Your task to perform on an android device: Is it going to rain today? Image 0: 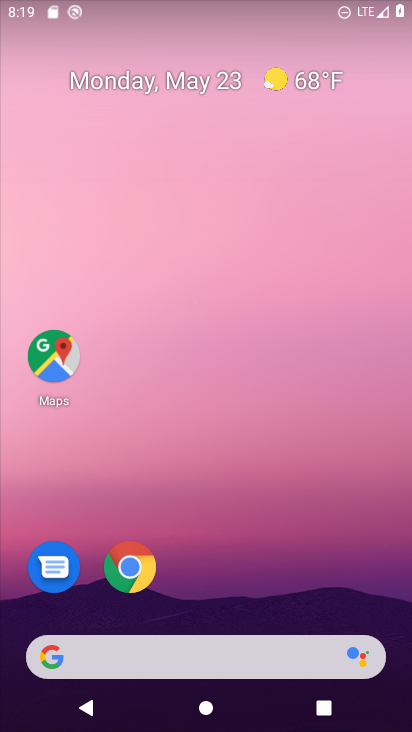
Step 0: drag from (242, 578) to (321, 133)
Your task to perform on an android device: Is it going to rain today? Image 1: 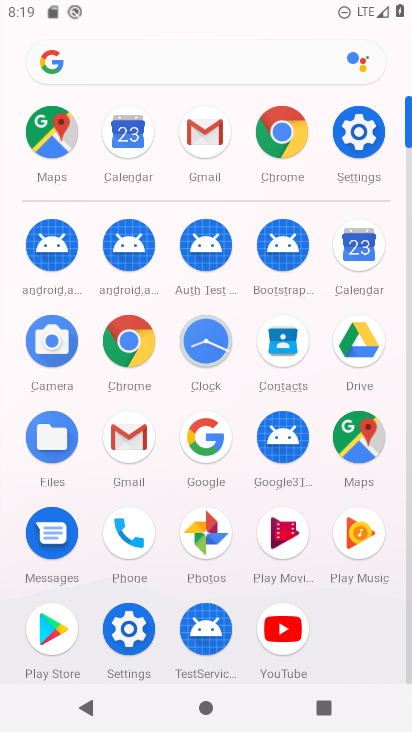
Step 1: click (216, 67)
Your task to perform on an android device: Is it going to rain today? Image 2: 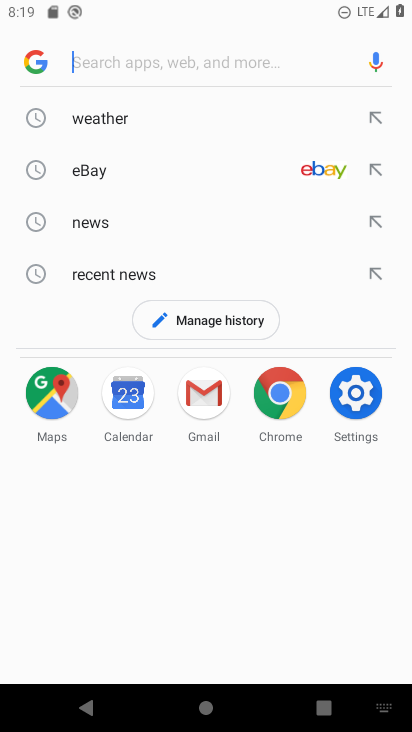
Step 2: type "Is it going to rain today?"
Your task to perform on an android device: Is it going to rain today? Image 3: 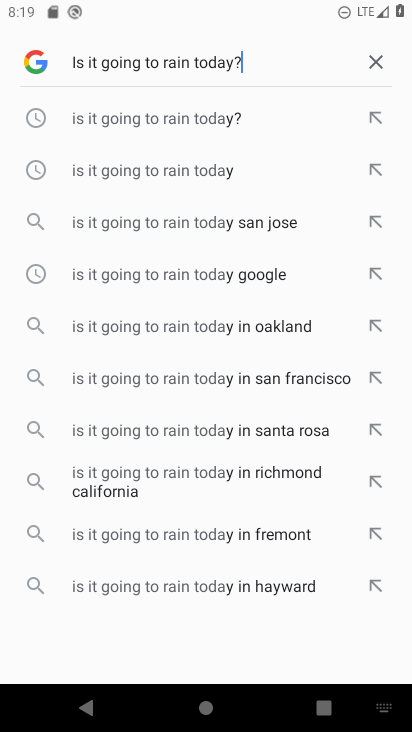
Step 3: type ""
Your task to perform on an android device: Is it going to rain today? Image 4: 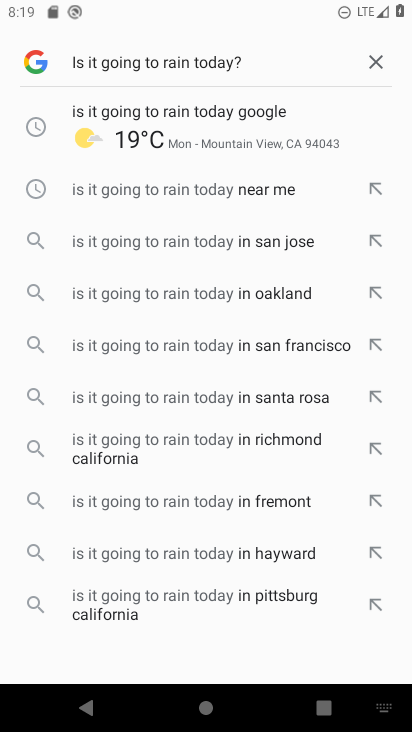
Step 4: click (171, 122)
Your task to perform on an android device: Is it going to rain today? Image 5: 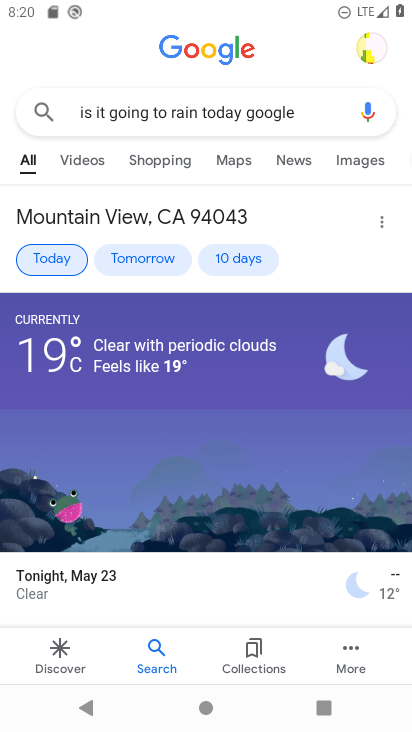
Step 5: task complete